Your task to perform on an android device: allow cookies in the chrome app Image 0: 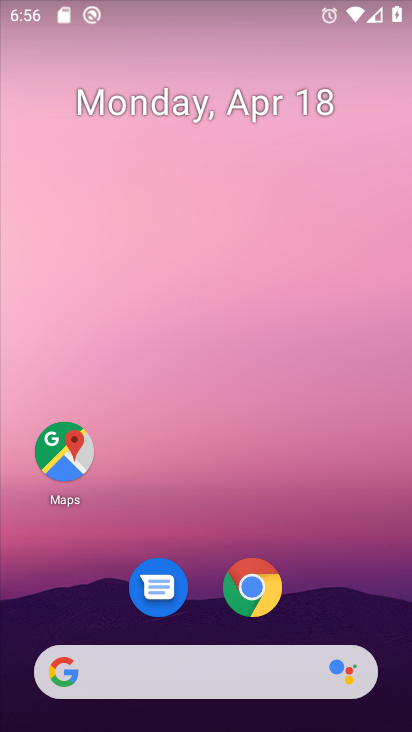
Step 0: click (246, 587)
Your task to perform on an android device: allow cookies in the chrome app Image 1: 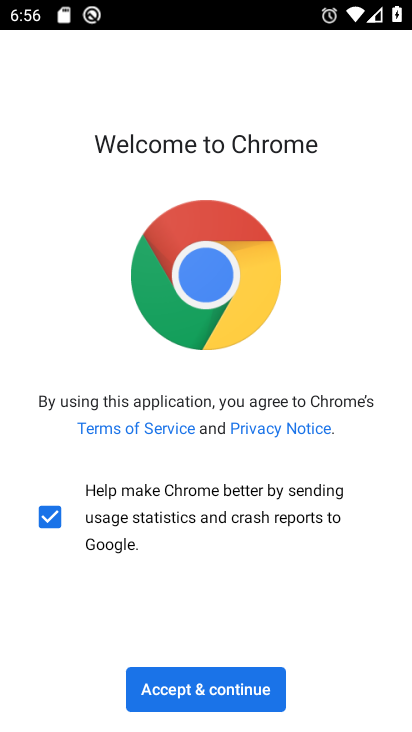
Step 1: click (249, 684)
Your task to perform on an android device: allow cookies in the chrome app Image 2: 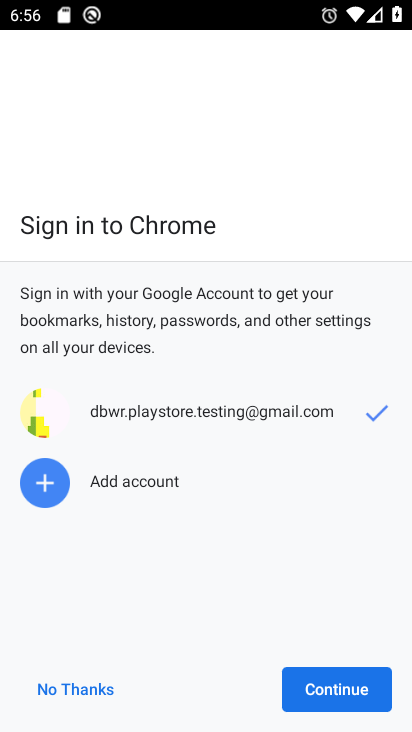
Step 2: click (249, 684)
Your task to perform on an android device: allow cookies in the chrome app Image 3: 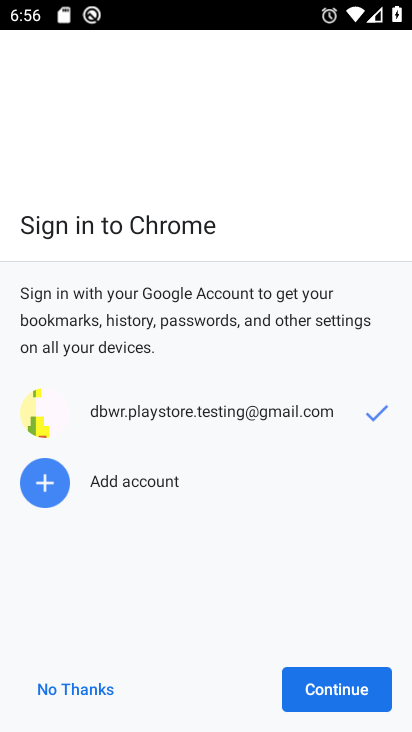
Step 3: click (290, 686)
Your task to perform on an android device: allow cookies in the chrome app Image 4: 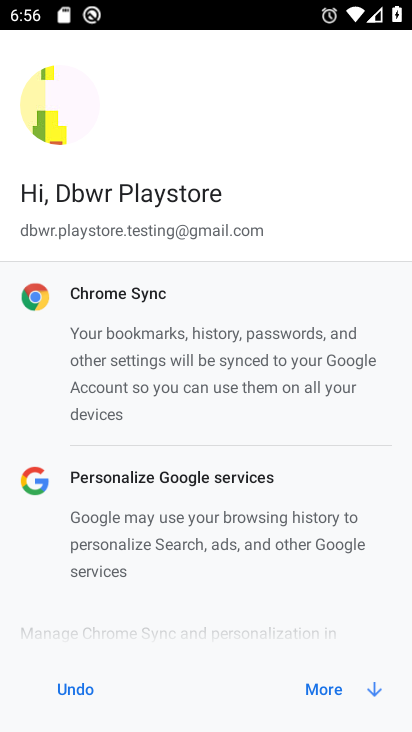
Step 4: click (341, 695)
Your task to perform on an android device: allow cookies in the chrome app Image 5: 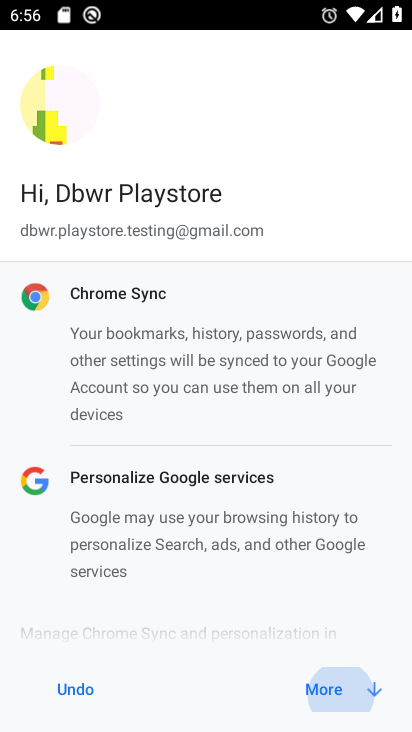
Step 5: click (341, 695)
Your task to perform on an android device: allow cookies in the chrome app Image 6: 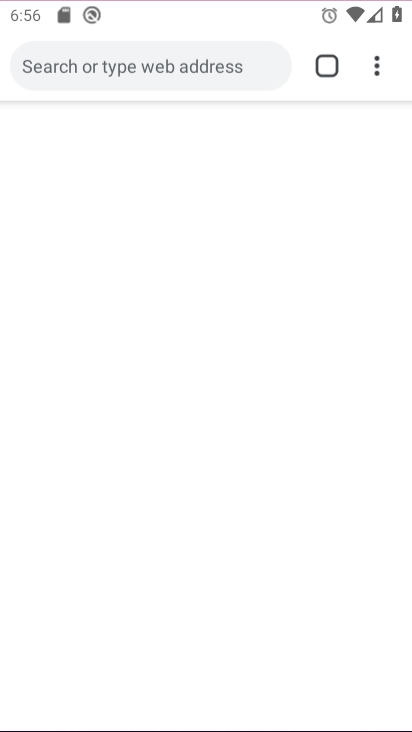
Step 6: click (386, 695)
Your task to perform on an android device: allow cookies in the chrome app Image 7: 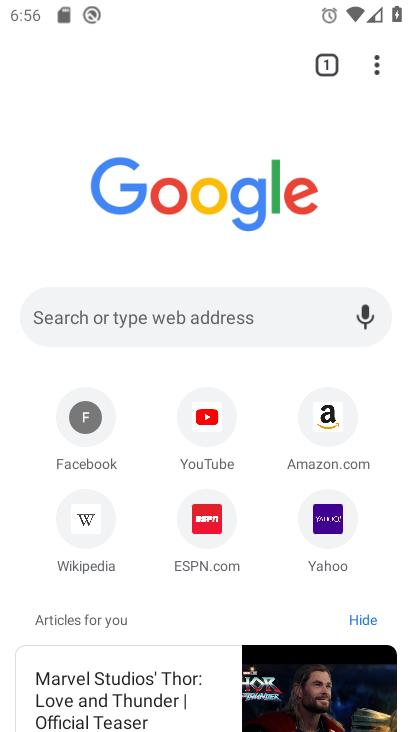
Step 7: click (387, 67)
Your task to perform on an android device: allow cookies in the chrome app Image 8: 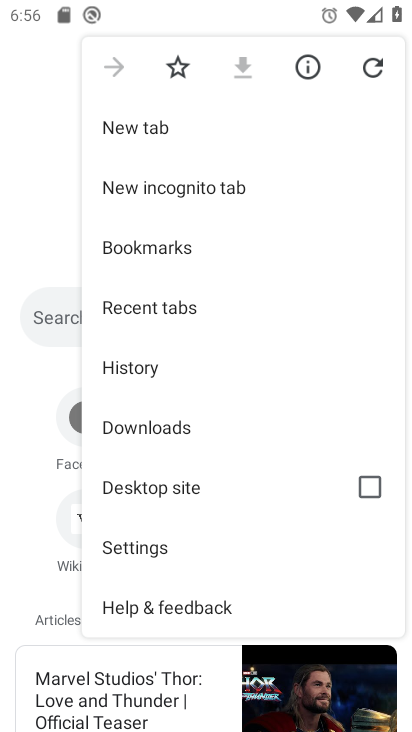
Step 8: click (228, 545)
Your task to perform on an android device: allow cookies in the chrome app Image 9: 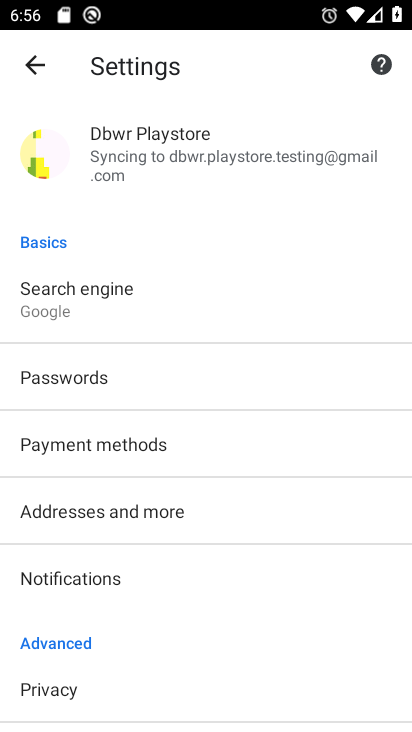
Step 9: drag from (183, 601) to (152, 264)
Your task to perform on an android device: allow cookies in the chrome app Image 10: 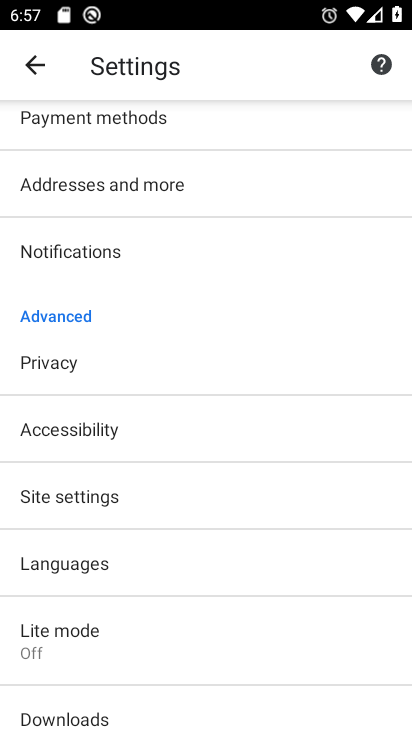
Step 10: click (209, 516)
Your task to perform on an android device: allow cookies in the chrome app Image 11: 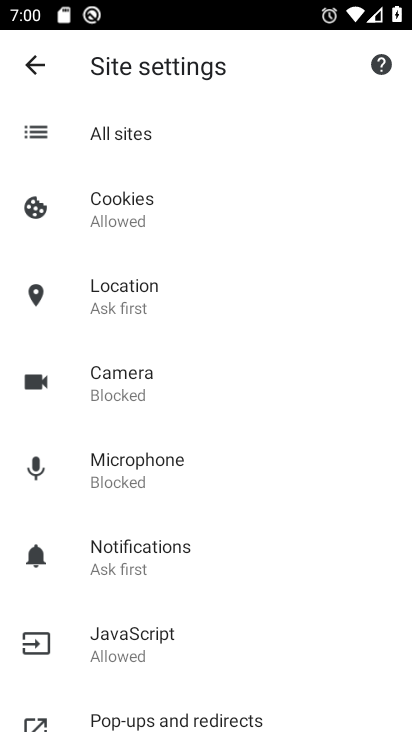
Step 11: click (162, 217)
Your task to perform on an android device: allow cookies in the chrome app Image 12: 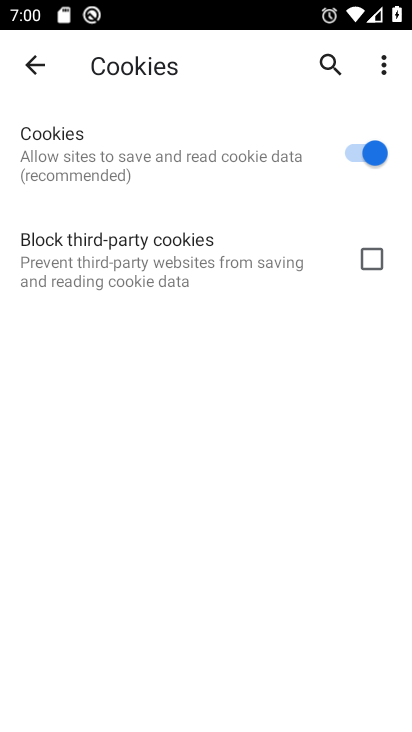
Step 12: click (359, 267)
Your task to perform on an android device: allow cookies in the chrome app Image 13: 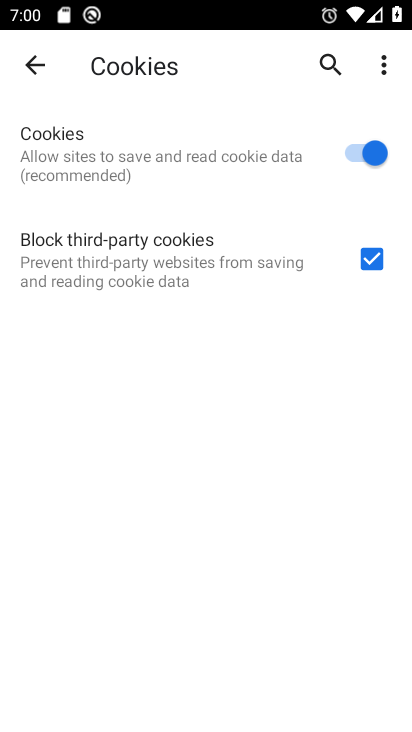
Step 13: task complete